Your task to perform on an android device: turn on sleep mode Image 0: 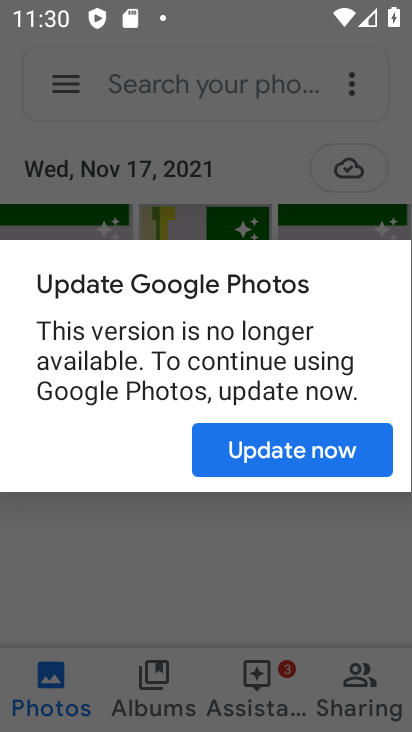
Step 0: press home button
Your task to perform on an android device: turn on sleep mode Image 1: 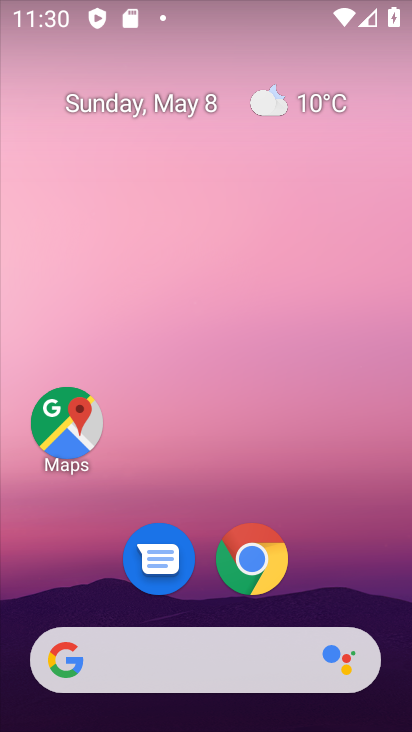
Step 1: drag from (209, 602) to (279, 54)
Your task to perform on an android device: turn on sleep mode Image 2: 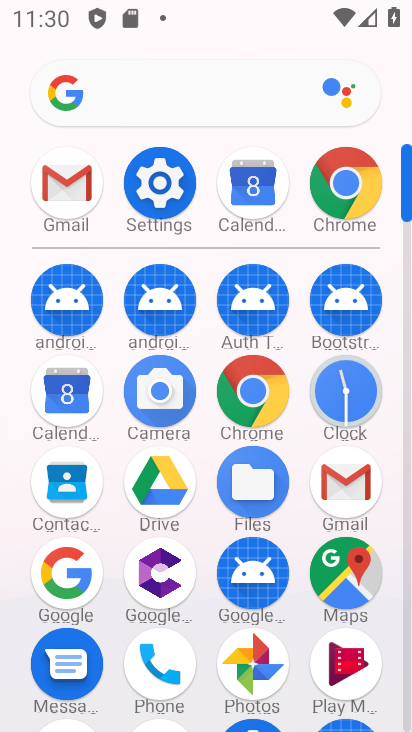
Step 2: click (179, 195)
Your task to perform on an android device: turn on sleep mode Image 3: 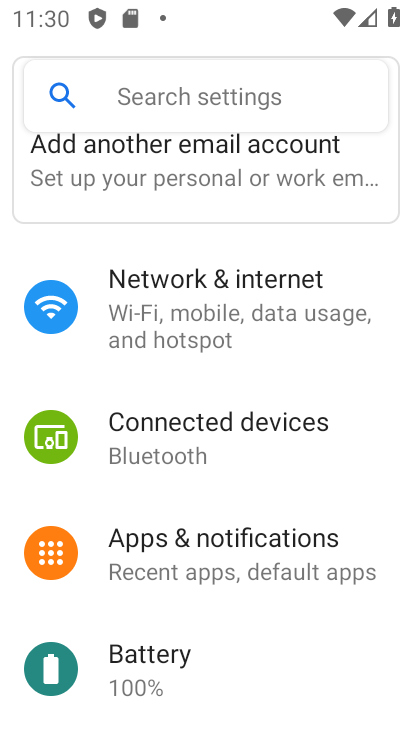
Step 3: click (216, 102)
Your task to perform on an android device: turn on sleep mode Image 4: 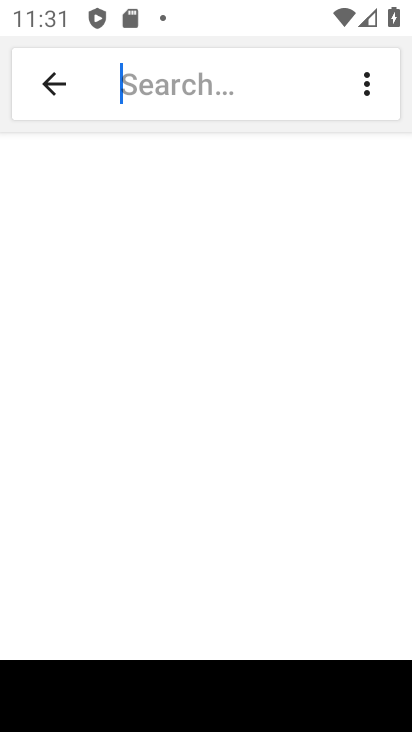
Step 4: type "sleep mode"
Your task to perform on an android device: turn on sleep mode Image 5: 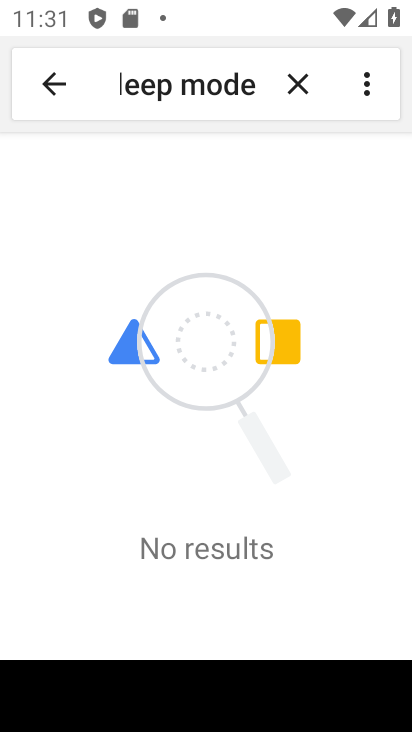
Step 5: task complete